Your task to perform on an android device: Go to calendar. Show me events next week Image 0: 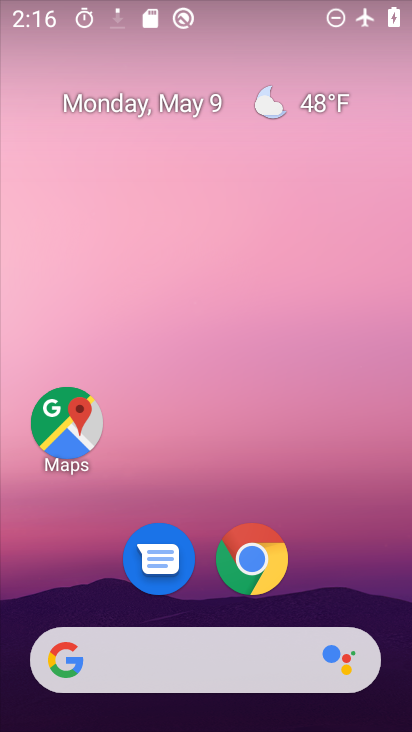
Step 0: drag from (186, 604) to (212, 309)
Your task to perform on an android device: Go to calendar. Show me events next week Image 1: 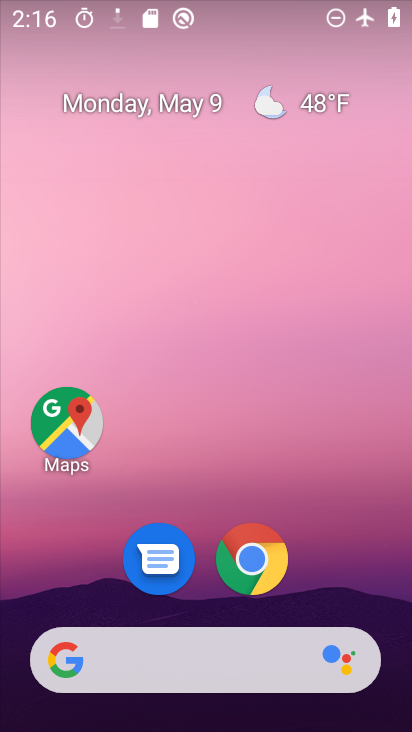
Step 1: drag from (202, 587) to (205, 283)
Your task to perform on an android device: Go to calendar. Show me events next week Image 2: 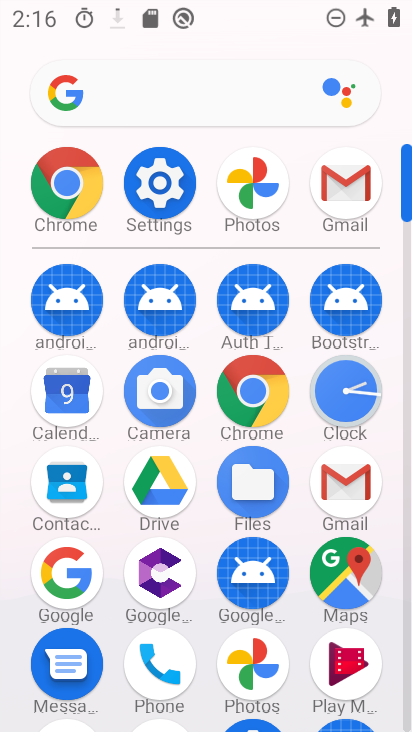
Step 2: drag from (196, 686) to (229, 267)
Your task to perform on an android device: Go to calendar. Show me events next week Image 3: 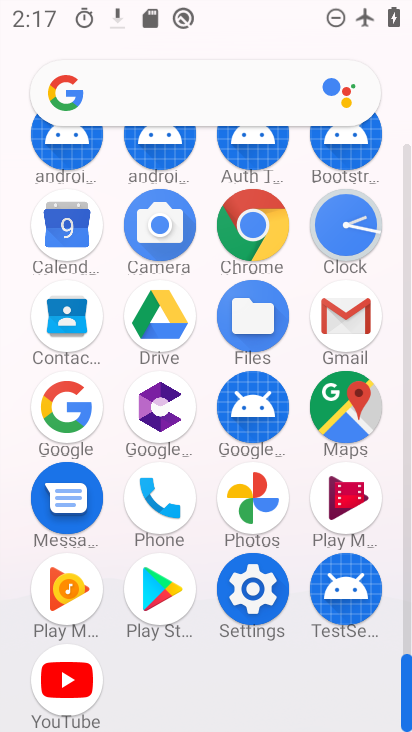
Step 3: drag from (197, 287) to (309, 257)
Your task to perform on an android device: Go to calendar. Show me events next week Image 4: 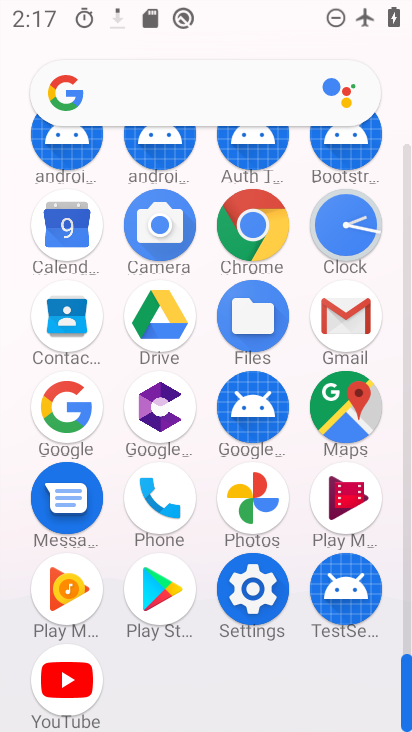
Step 4: drag from (207, 293) to (182, 621)
Your task to perform on an android device: Go to calendar. Show me events next week Image 5: 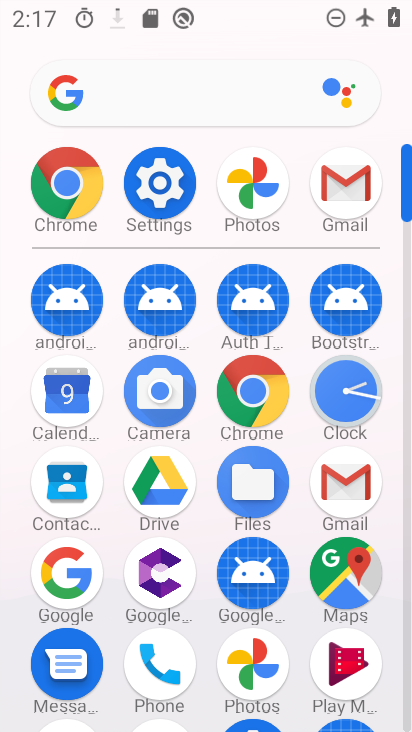
Step 5: click (93, 411)
Your task to perform on an android device: Go to calendar. Show me events next week Image 6: 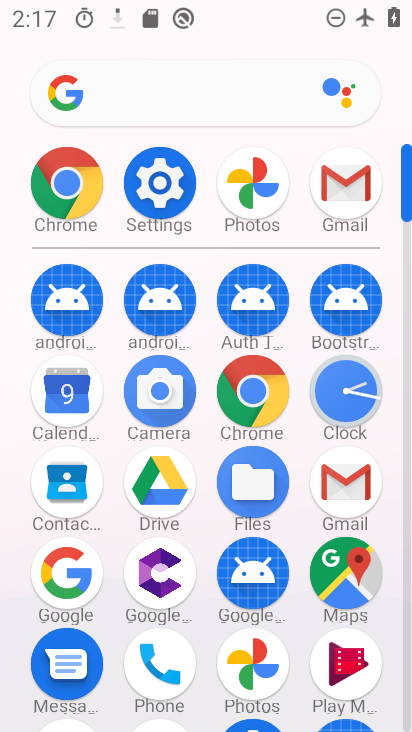
Step 6: click (93, 411)
Your task to perform on an android device: Go to calendar. Show me events next week Image 7: 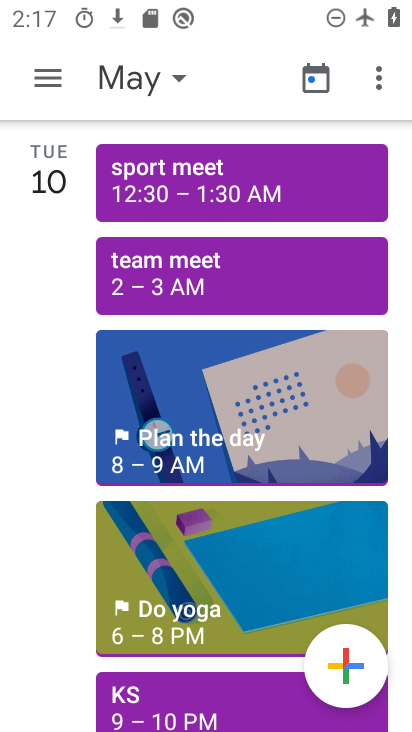
Step 7: drag from (172, 581) to (192, 340)
Your task to perform on an android device: Go to calendar. Show me events next week Image 8: 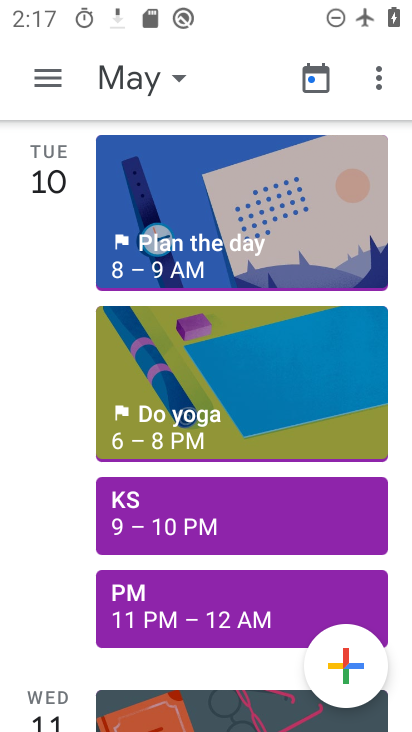
Step 8: drag from (199, 538) to (275, 208)
Your task to perform on an android device: Go to calendar. Show me events next week Image 9: 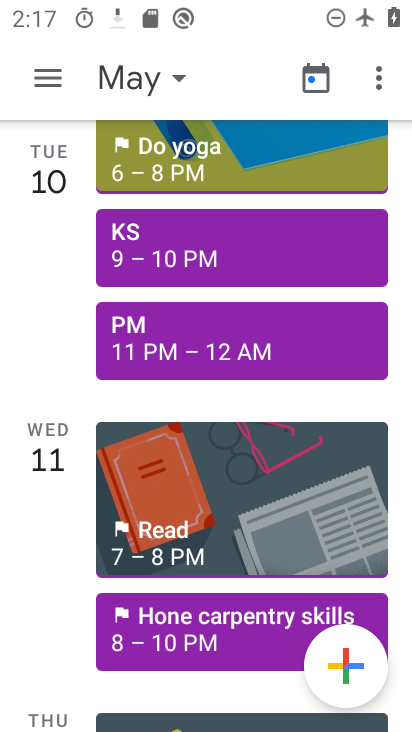
Step 9: click (136, 85)
Your task to perform on an android device: Go to calendar. Show me events next week Image 10: 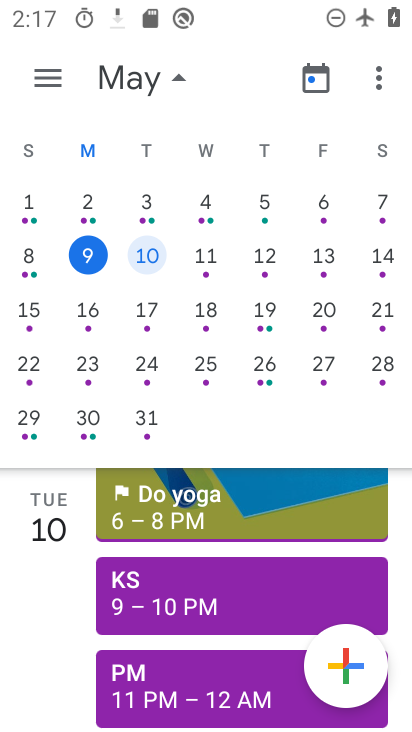
Step 10: drag from (334, 266) to (4, 324)
Your task to perform on an android device: Go to calendar. Show me events next week Image 11: 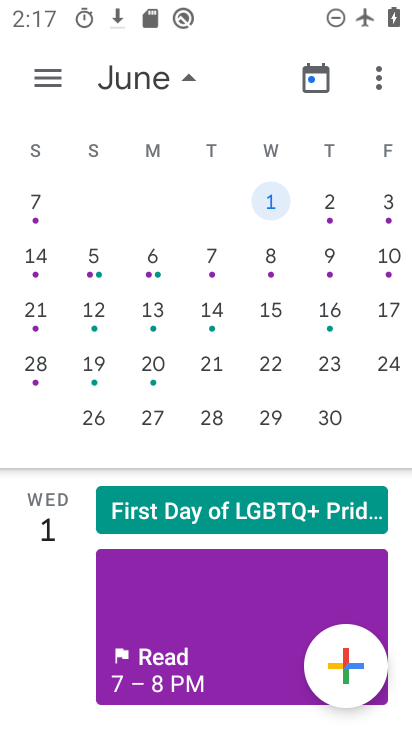
Step 11: drag from (65, 306) to (403, 148)
Your task to perform on an android device: Go to calendar. Show me events next week Image 12: 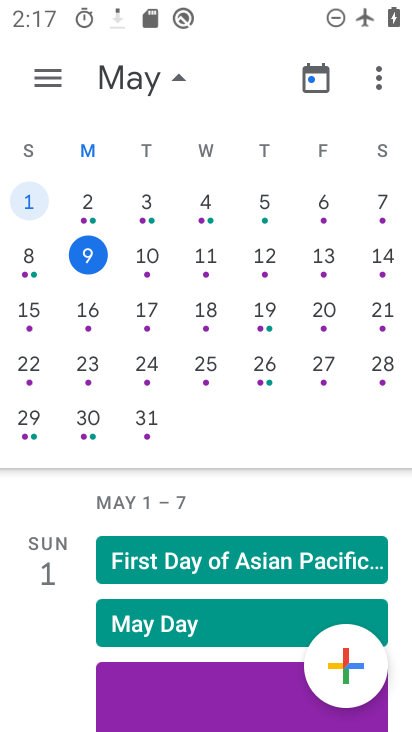
Step 12: drag from (277, 485) to (287, 413)
Your task to perform on an android device: Go to calendar. Show me events next week Image 13: 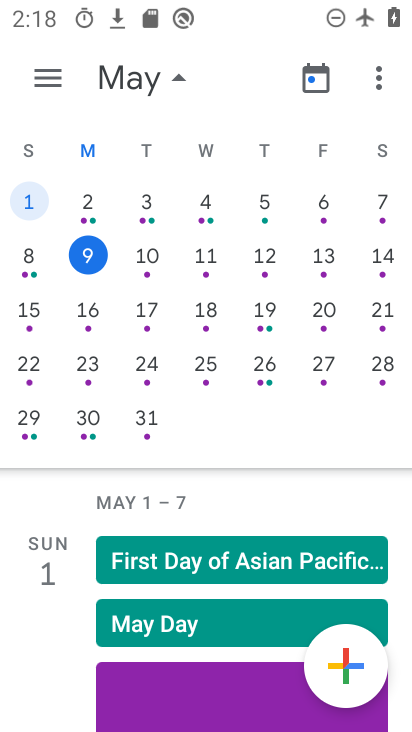
Step 13: drag from (197, 589) to (237, 420)
Your task to perform on an android device: Go to calendar. Show me events next week Image 14: 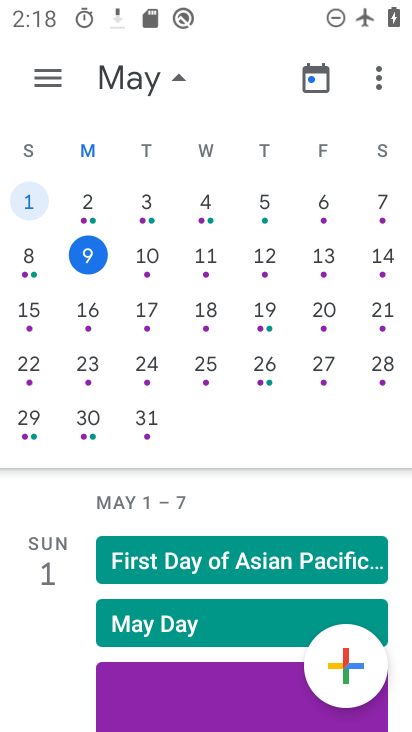
Step 14: drag from (250, 666) to (267, 513)
Your task to perform on an android device: Go to calendar. Show me events next week Image 15: 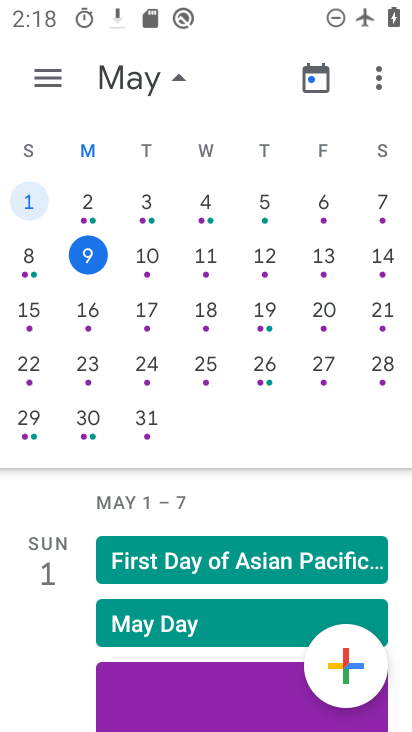
Step 15: drag from (218, 614) to (259, 373)
Your task to perform on an android device: Go to calendar. Show me events next week Image 16: 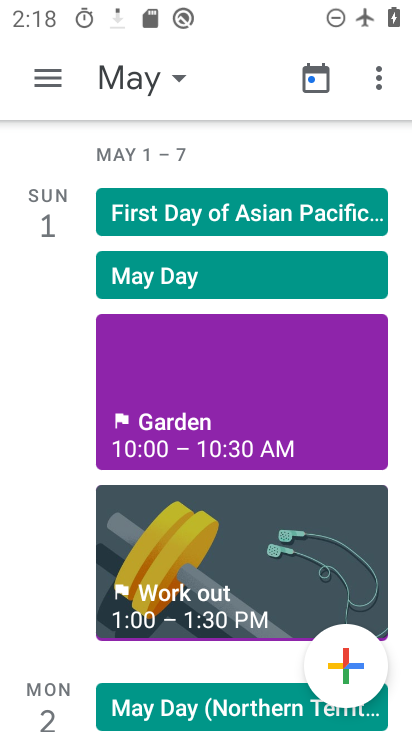
Step 16: drag from (169, 615) to (217, 383)
Your task to perform on an android device: Go to calendar. Show me events next week Image 17: 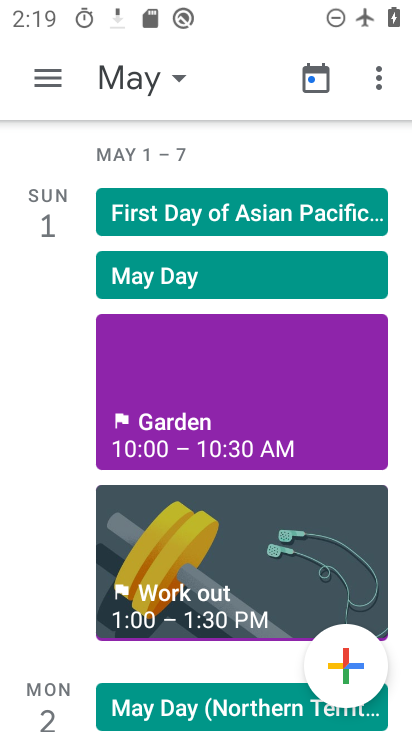
Step 17: drag from (85, 584) to (129, 321)
Your task to perform on an android device: Go to calendar. Show me events next week Image 18: 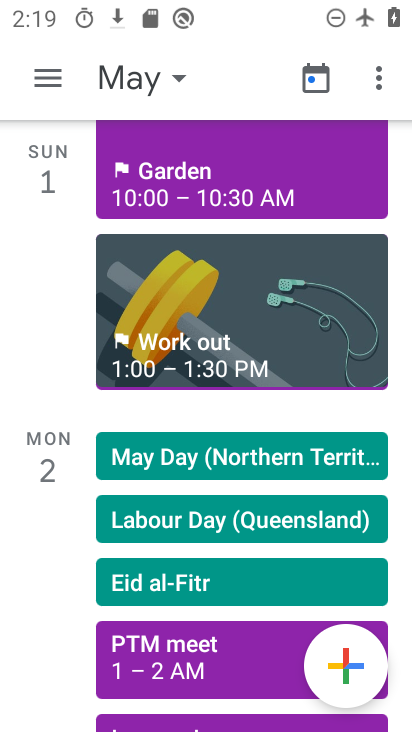
Step 18: drag from (204, 701) to (281, 339)
Your task to perform on an android device: Go to calendar. Show me events next week Image 19: 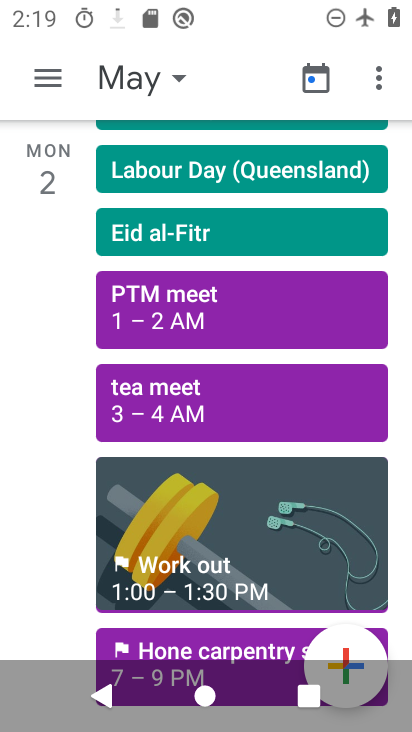
Step 19: drag from (259, 200) to (263, 679)
Your task to perform on an android device: Go to calendar. Show me events next week Image 20: 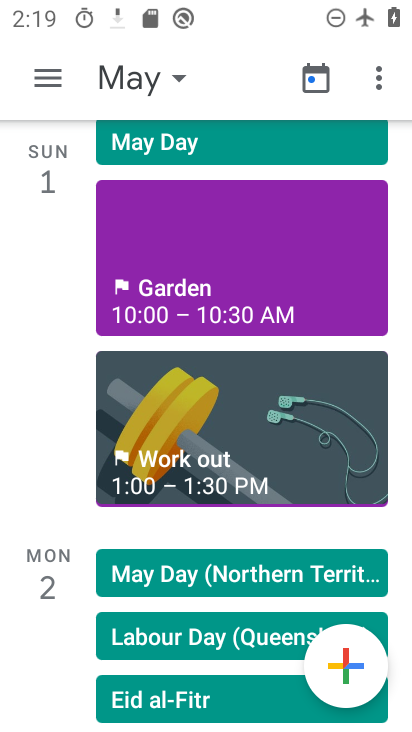
Step 20: drag from (222, 681) to (285, 464)
Your task to perform on an android device: Go to calendar. Show me events next week Image 21: 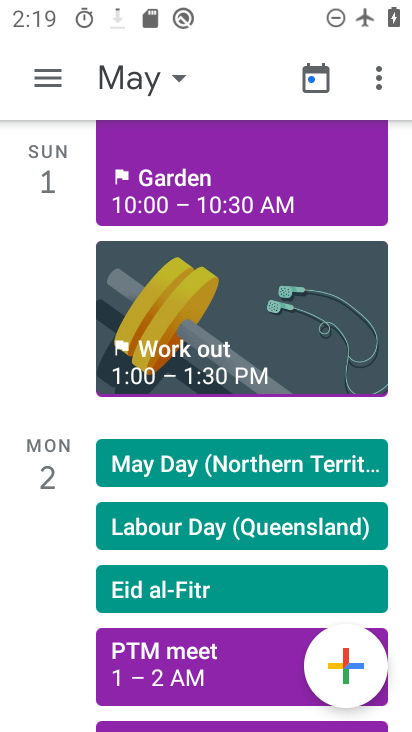
Step 21: drag from (189, 666) to (241, 379)
Your task to perform on an android device: Go to calendar. Show me events next week Image 22: 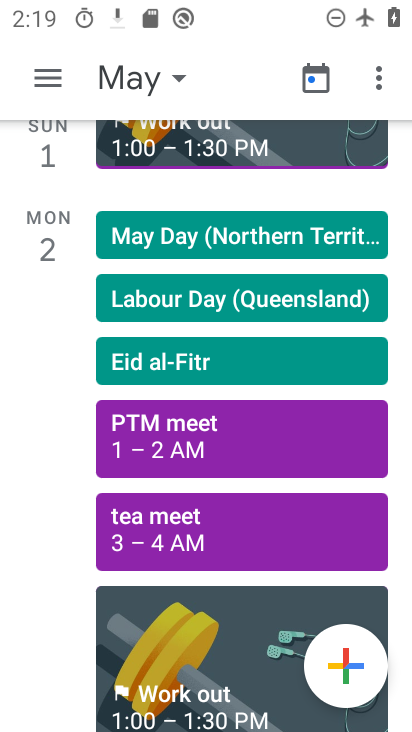
Step 22: click (141, 59)
Your task to perform on an android device: Go to calendar. Show me events next week Image 23: 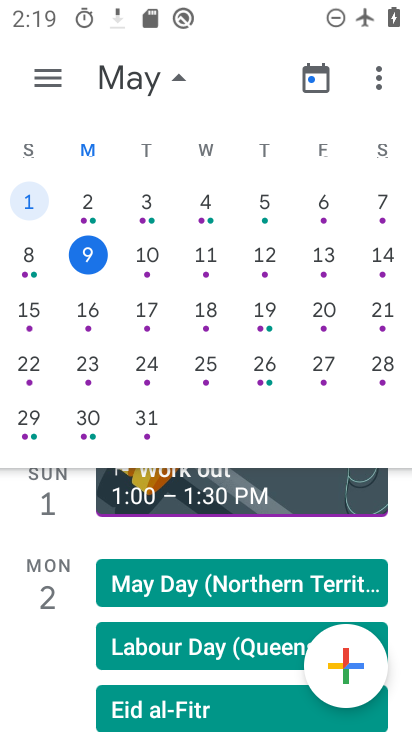
Step 23: click (160, 85)
Your task to perform on an android device: Go to calendar. Show me events next week Image 24: 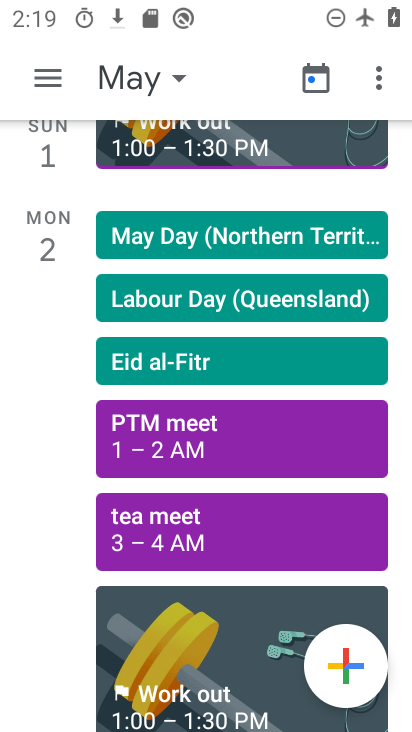
Step 24: click (161, 85)
Your task to perform on an android device: Go to calendar. Show me events next week Image 25: 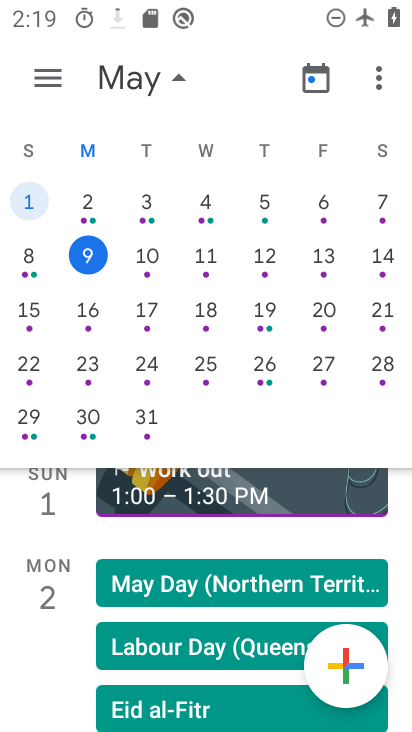
Step 25: click (94, 307)
Your task to perform on an android device: Go to calendar. Show me events next week Image 26: 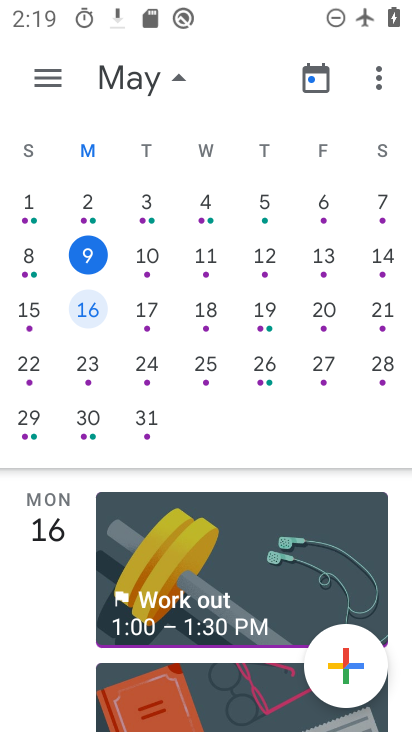
Step 26: click (92, 320)
Your task to perform on an android device: Go to calendar. Show me events next week Image 27: 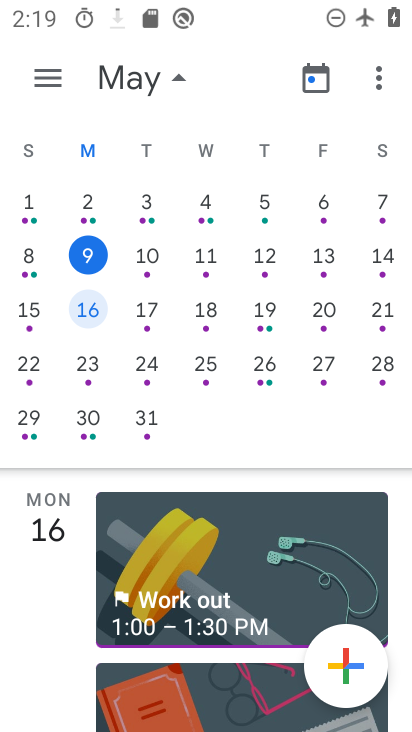
Step 27: task complete